Your task to perform on an android device: Go to accessibility settings Image 0: 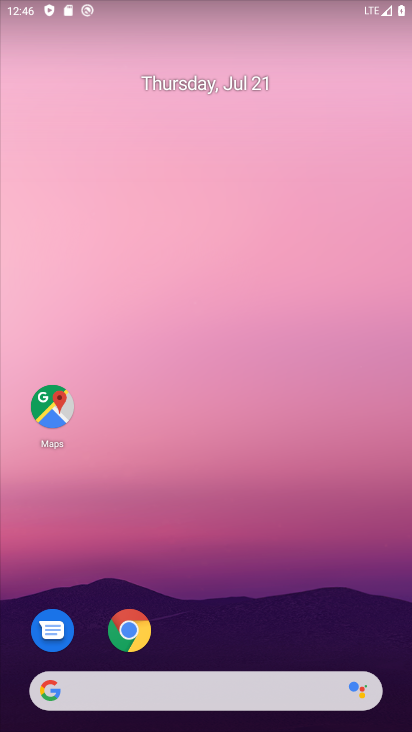
Step 0: drag from (217, 324) to (198, 110)
Your task to perform on an android device: Go to accessibility settings Image 1: 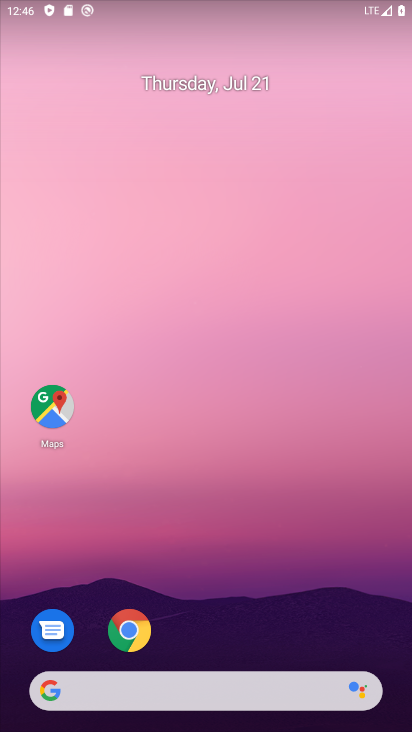
Step 1: drag from (200, 628) to (220, 120)
Your task to perform on an android device: Go to accessibility settings Image 2: 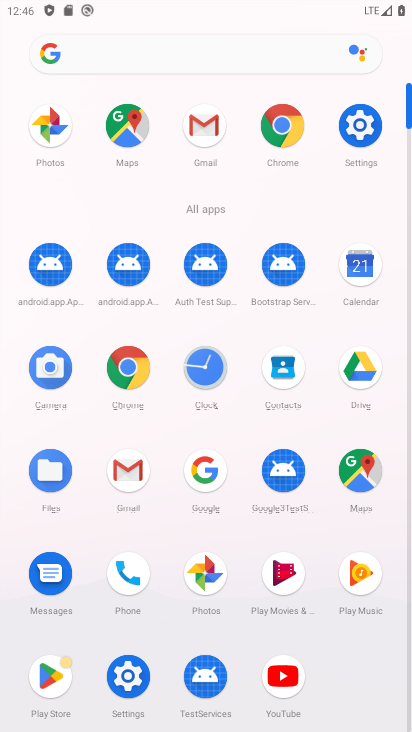
Step 2: click (364, 129)
Your task to perform on an android device: Go to accessibility settings Image 3: 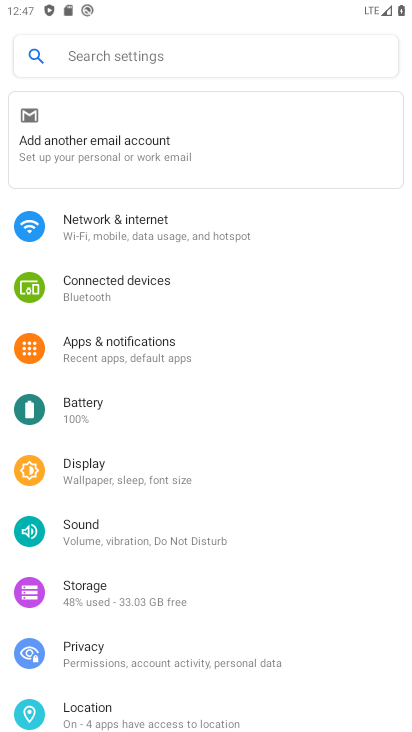
Step 3: drag from (111, 653) to (132, 266)
Your task to perform on an android device: Go to accessibility settings Image 4: 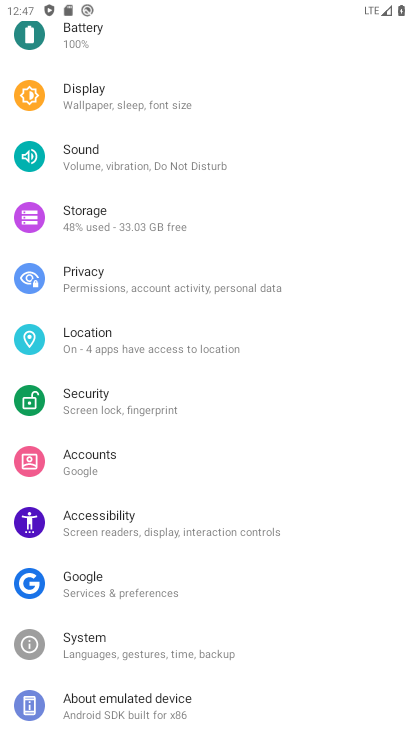
Step 4: click (123, 529)
Your task to perform on an android device: Go to accessibility settings Image 5: 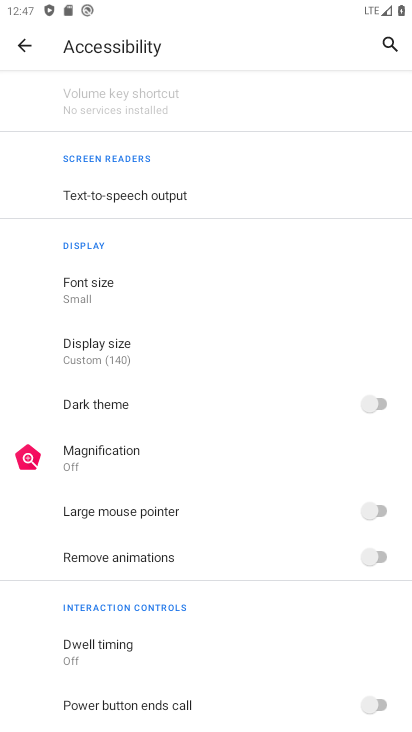
Step 5: task complete